Your task to perform on an android device: change the clock style Image 0: 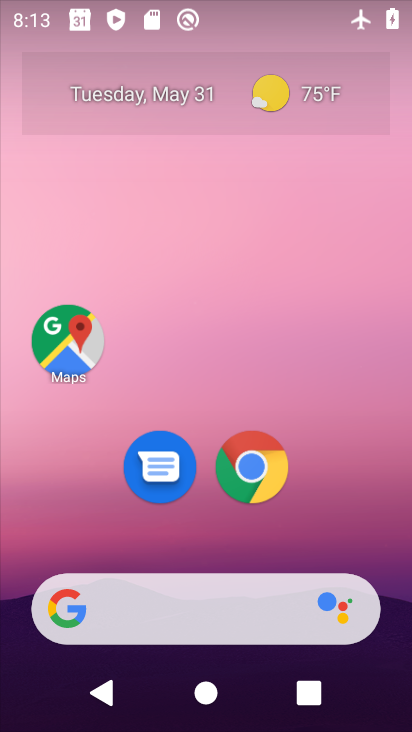
Step 0: drag from (221, 348) to (238, 50)
Your task to perform on an android device: change the clock style Image 1: 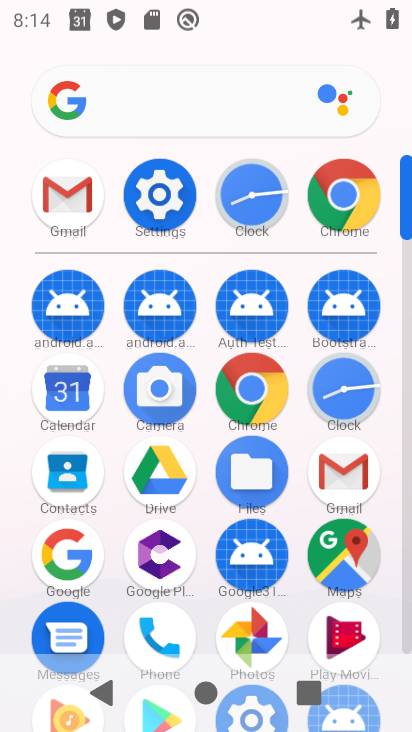
Step 1: click (347, 409)
Your task to perform on an android device: change the clock style Image 2: 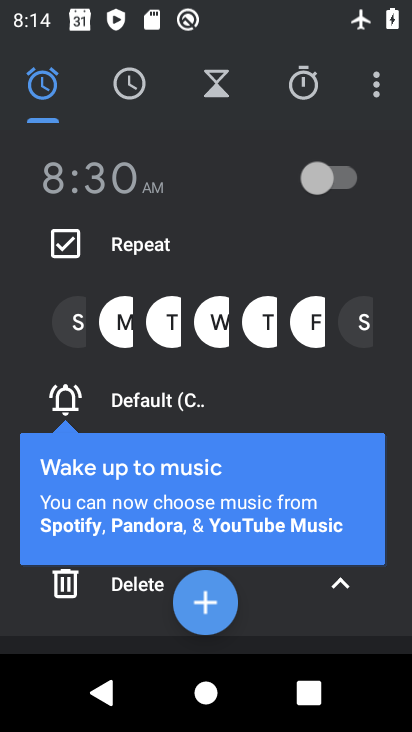
Step 2: drag from (369, 79) to (210, 176)
Your task to perform on an android device: change the clock style Image 3: 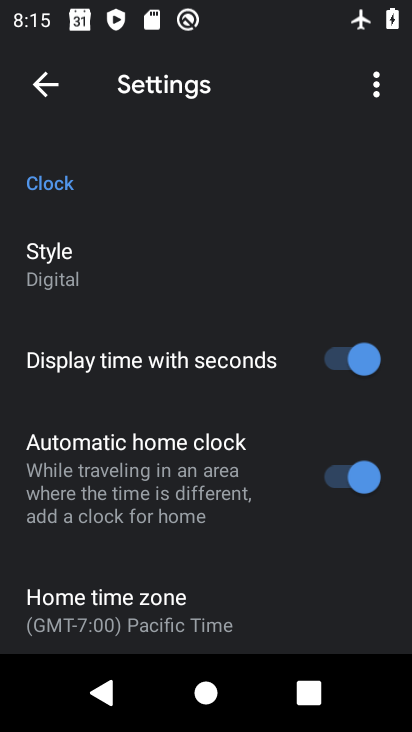
Step 3: drag from (235, 564) to (230, 184)
Your task to perform on an android device: change the clock style Image 4: 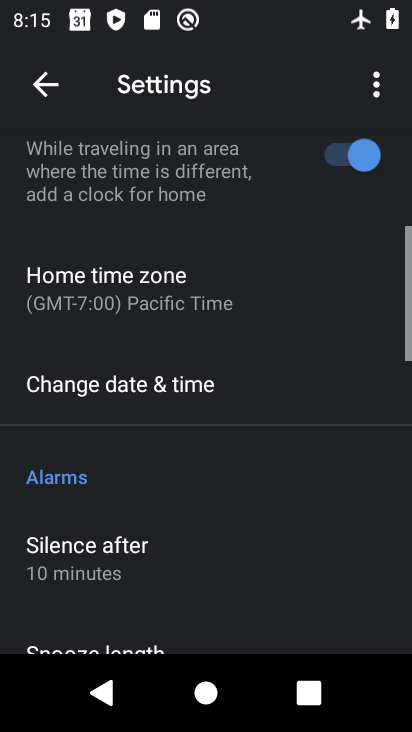
Step 4: drag from (217, 205) to (249, 716)
Your task to perform on an android device: change the clock style Image 5: 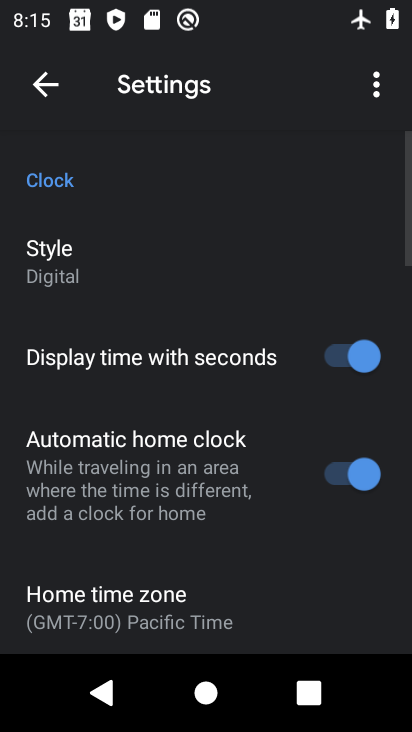
Step 5: click (100, 259)
Your task to perform on an android device: change the clock style Image 6: 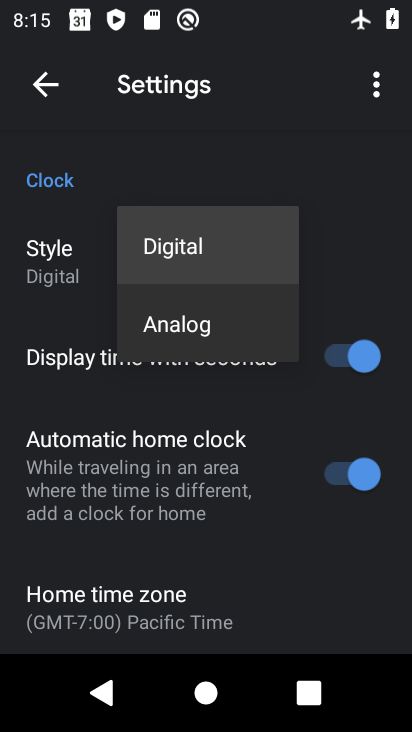
Step 6: click (175, 308)
Your task to perform on an android device: change the clock style Image 7: 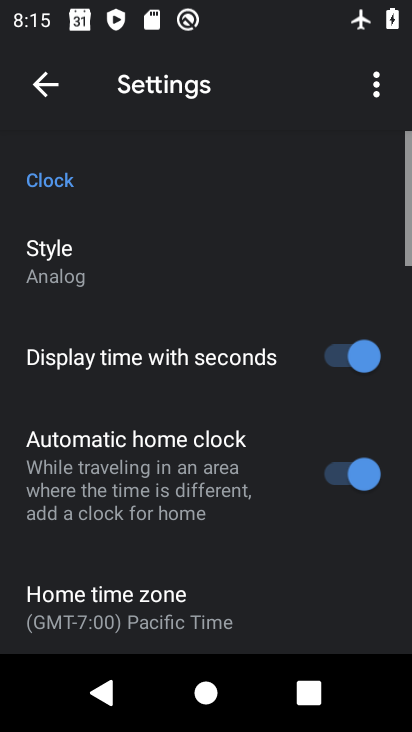
Step 7: task complete